Your task to perform on an android device: check battery use Image 0: 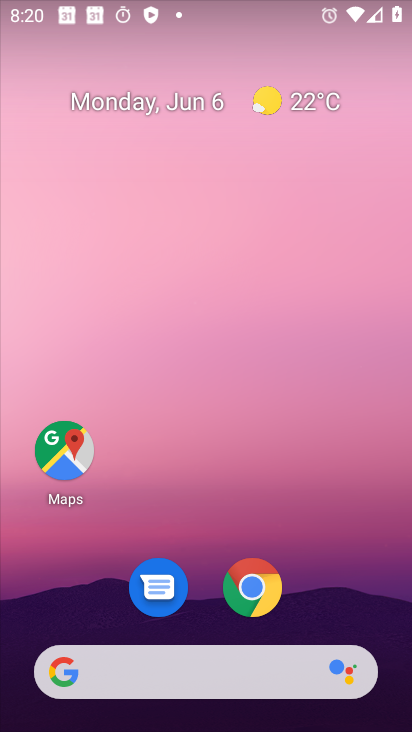
Step 0: drag from (214, 654) to (193, 301)
Your task to perform on an android device: check battery use Image 1: 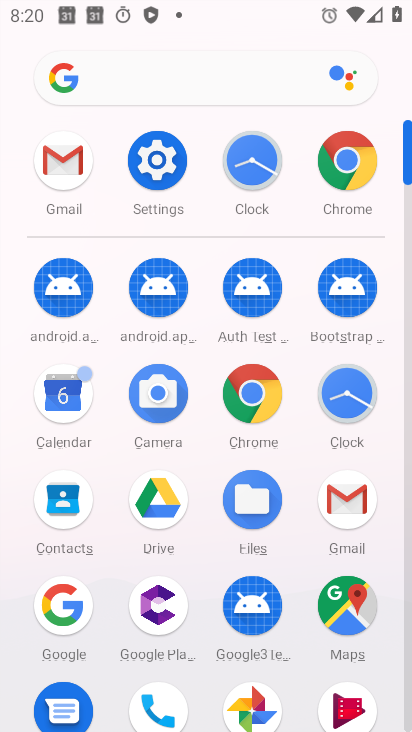
Step 1: click (157, 147)
Your task to perform on an android device: check battery use Image 2: 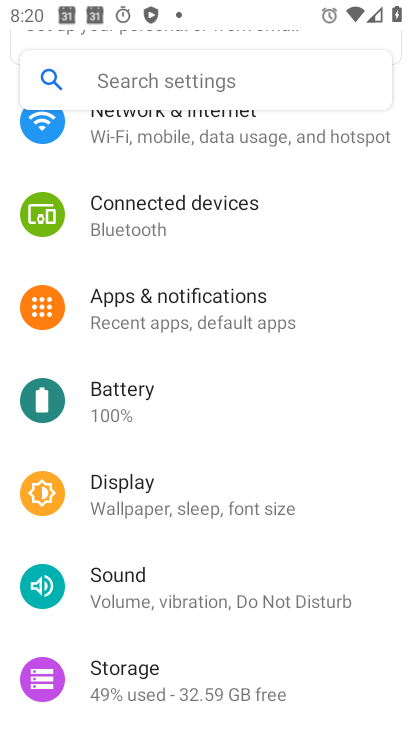
Step 2: click (114, 402)
Your task to perform on an android device: check battery use Image 3: 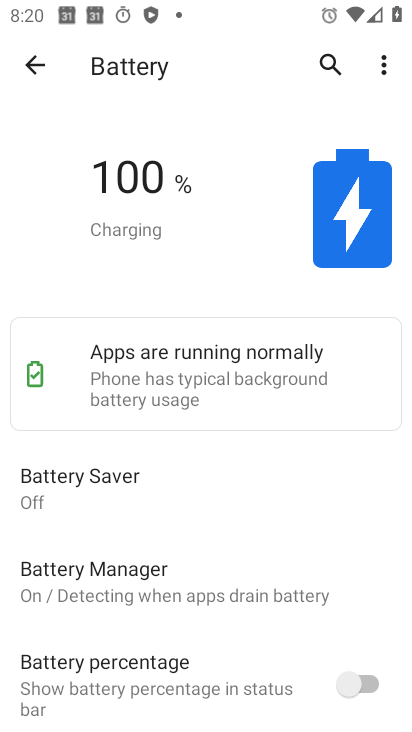
Step 3: task complete